Your task to perform on an android device: turn pop-ups on in chrome Image 0: 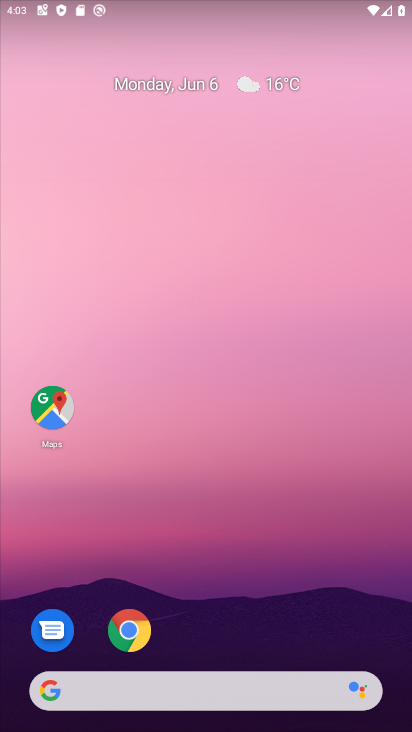
Step 0: drag from (258, 620) to (271, 139)
Your task to perform on an android device: turn pop-ups on in chrome Image 1: 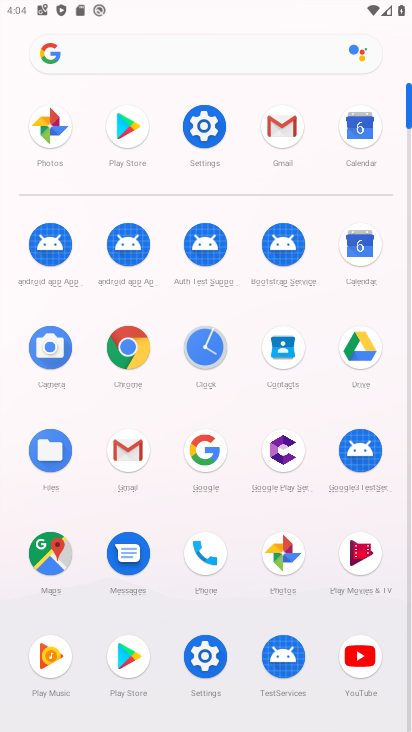
Step 1: drag from (216, 346) to (222, 46)
Your task to perform on an android device: turn pop-ups on in chrome Image 2: 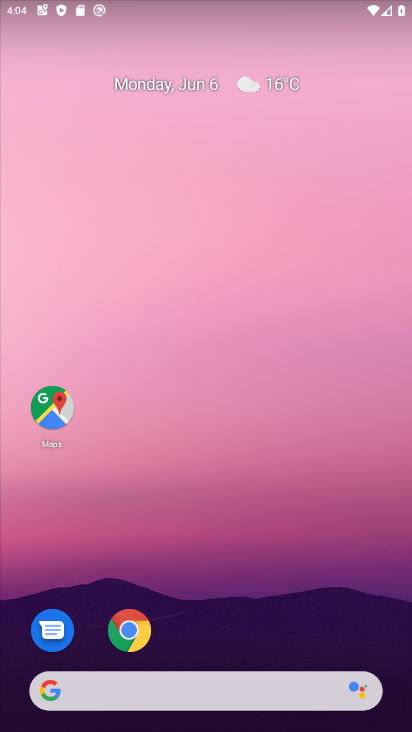
Step 2: click (143, 647)
Your task to perform on an android device: turn pop-ups on in chrome Image 3: 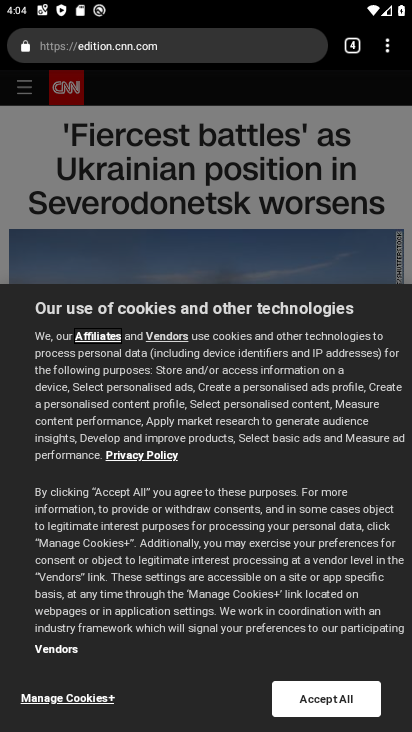
Step 3: drag from (391, 40) to (241, 505)
Your task to perform on an android device: turn pop-ups on in chrome Image 4: 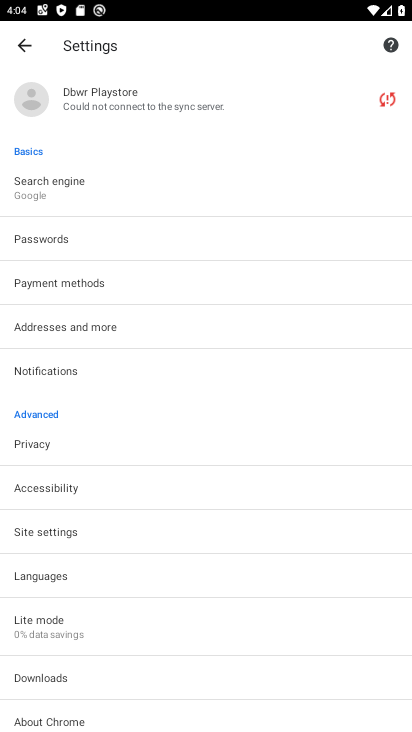
Step 4: click (72, 523)
Your task to perform on an android device: turn pop-ups on in chrome Image 5: 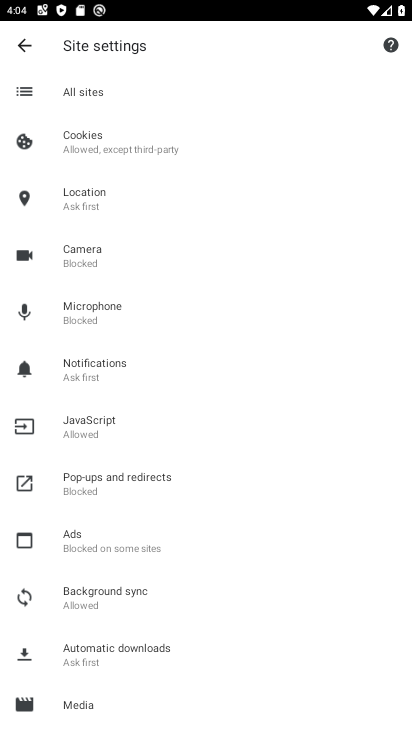
Step 5: click (88, 481)
Your task to perform on an android device: turn pop-ups on in chrome Image 6: 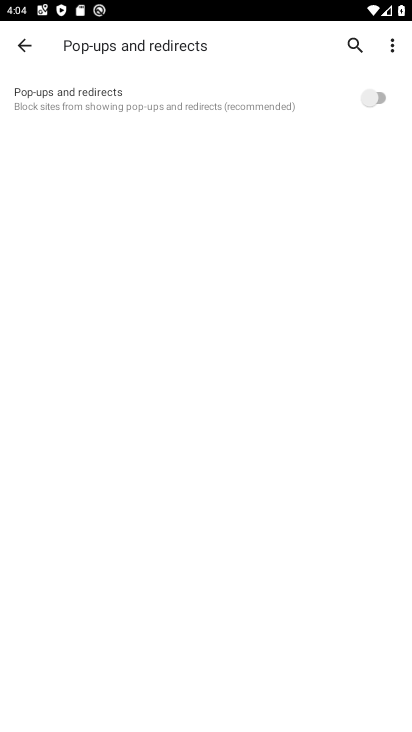
Step 6: click (369, 97)
Your task to perform on an android device: turn pop-ups on in chrome Image 7: 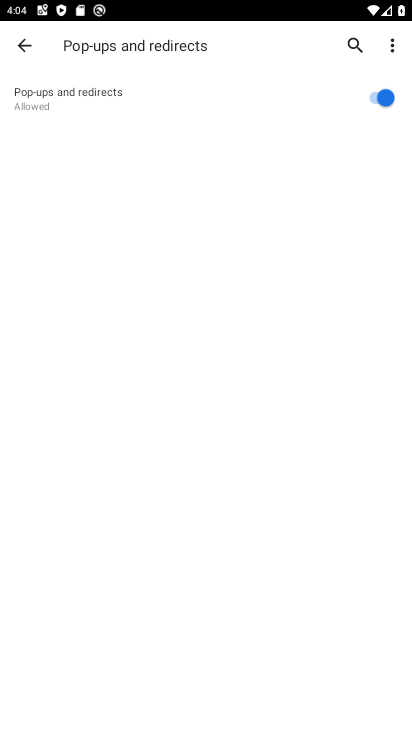
Step 7: task complete